Your task to perform on an android device: Go to internet settings Image 0: 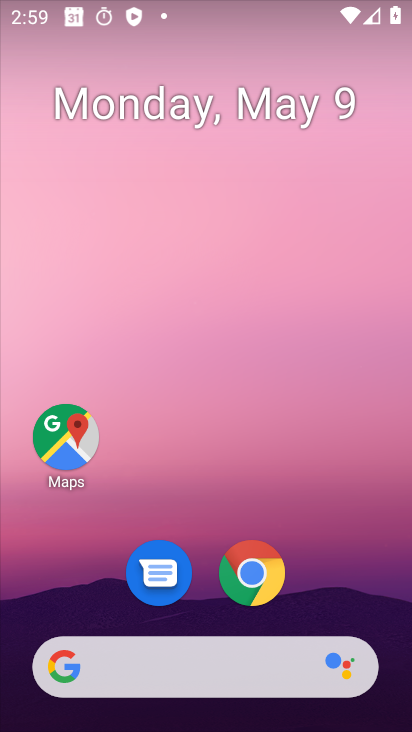
Step 0: drag from (374, 599) to (86, 42)
Your task to perform on an android device: Go to internet settings Image 1: 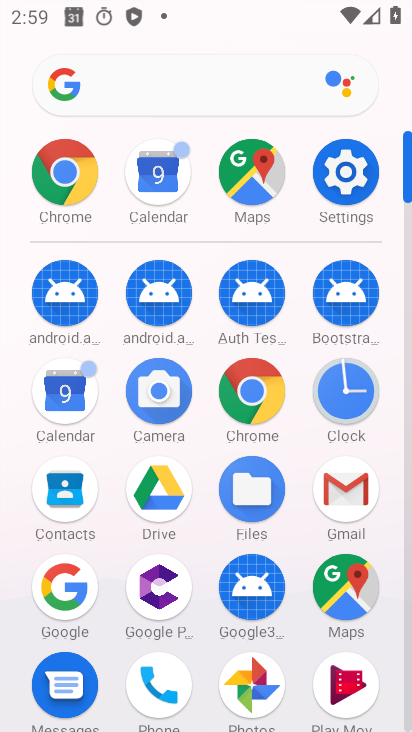
Step 1: click (330, 175)
Your task to perform on an android device: Go to internet settings Image 2: 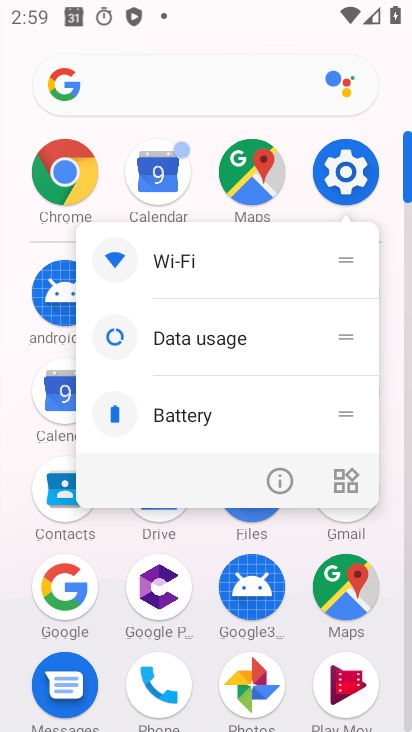
Step 2: click (334, 175)
Your task to perform on an android device: Go to internet settings Image 3: 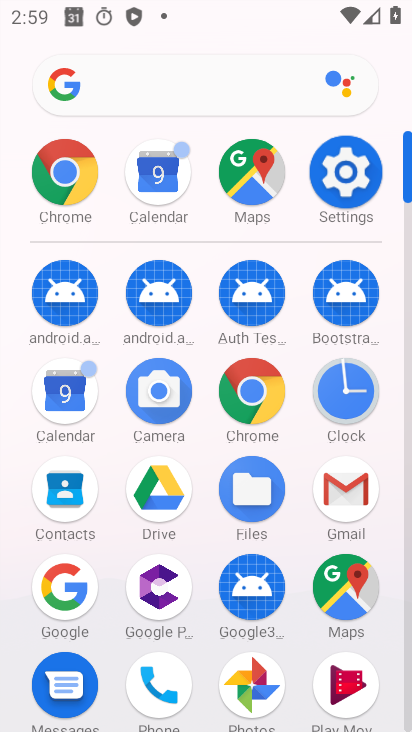
Step 3: click (338, 172)
Your task to perform on an android device: Go to internet settings Image 4: 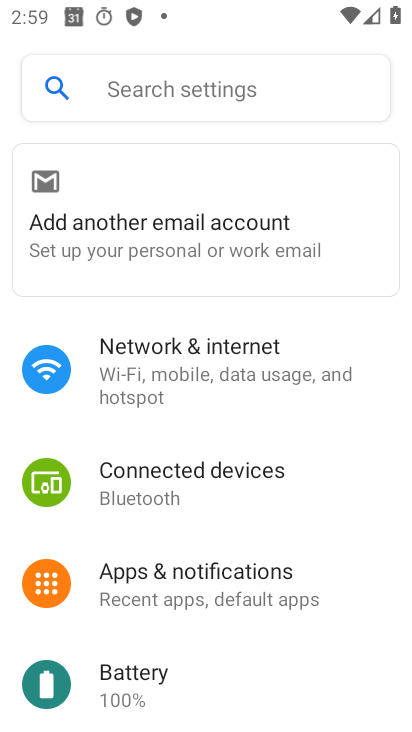
Step 4: click (172, 359)
Your task to perform on an android device: Go to internet settings Image 5: 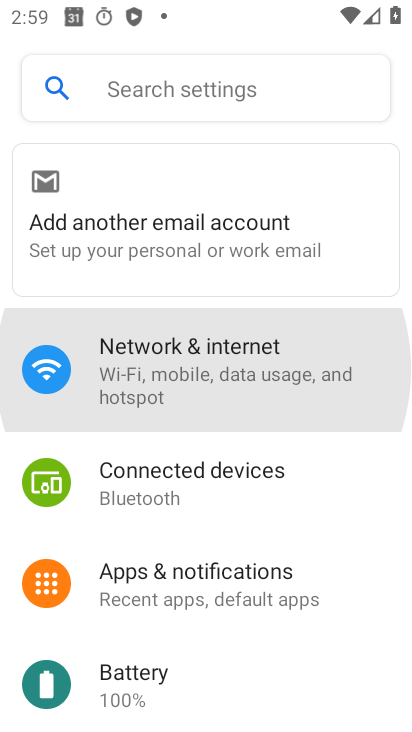
Step 5: click (176, 356)
Your task to perform on an android device: Go to internet settings Image 6: 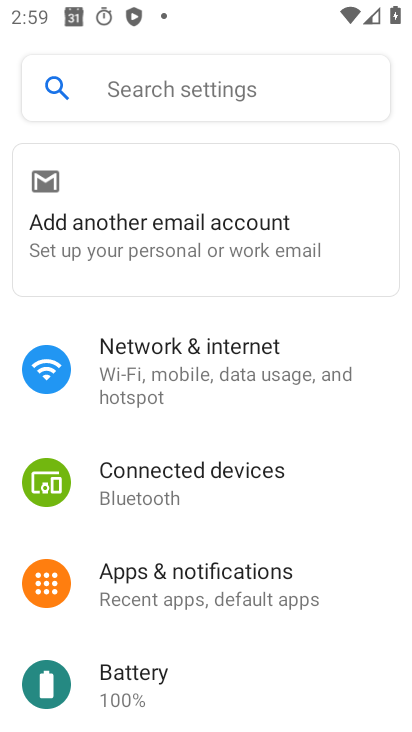
Step 6: click (176, 356)
Your task to perform on an android device: Go to internet settings Image 7: 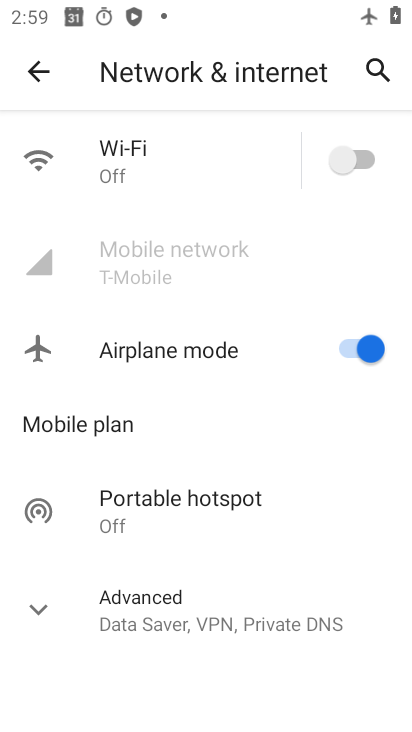
Step 7: click (342, 162)
Your task to perform on an android device: Go to internet settings Image 8: 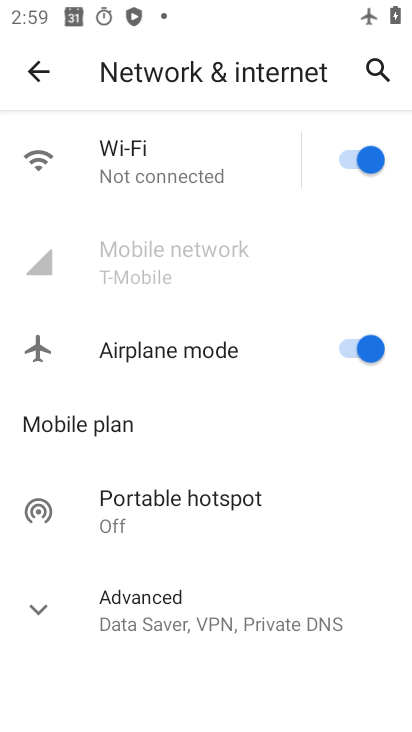
Step 8: click (377, 349)
Your task to perform on an android device: Go to internet settings Image 9: 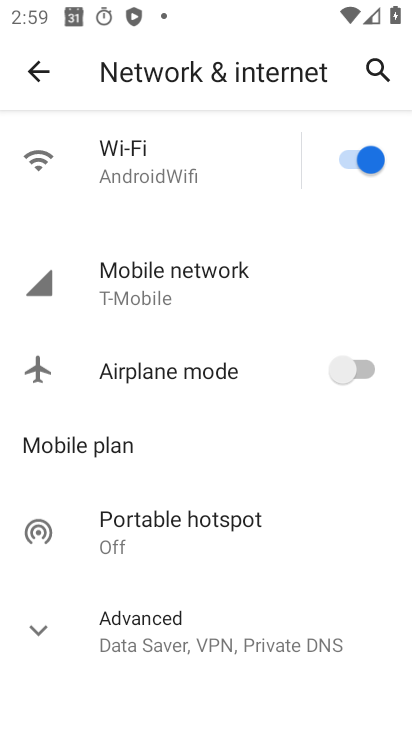
Step 9: task complete